Your task to perform on an android device: Search for the new nike air max shoes on Nike. Image 0: 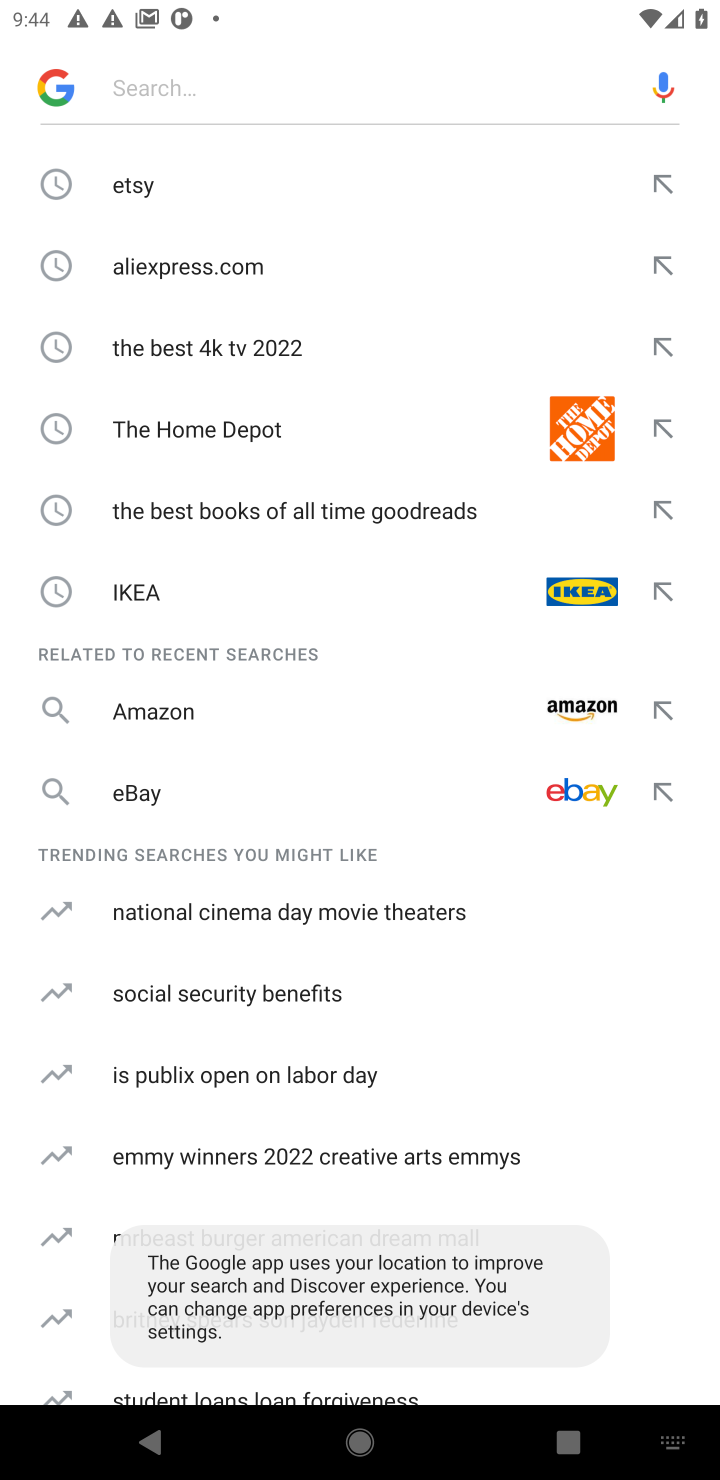
Step 0: press home button
Your task to perform on an android device: Search for the new nike air max shoes on Nike. Image 1: 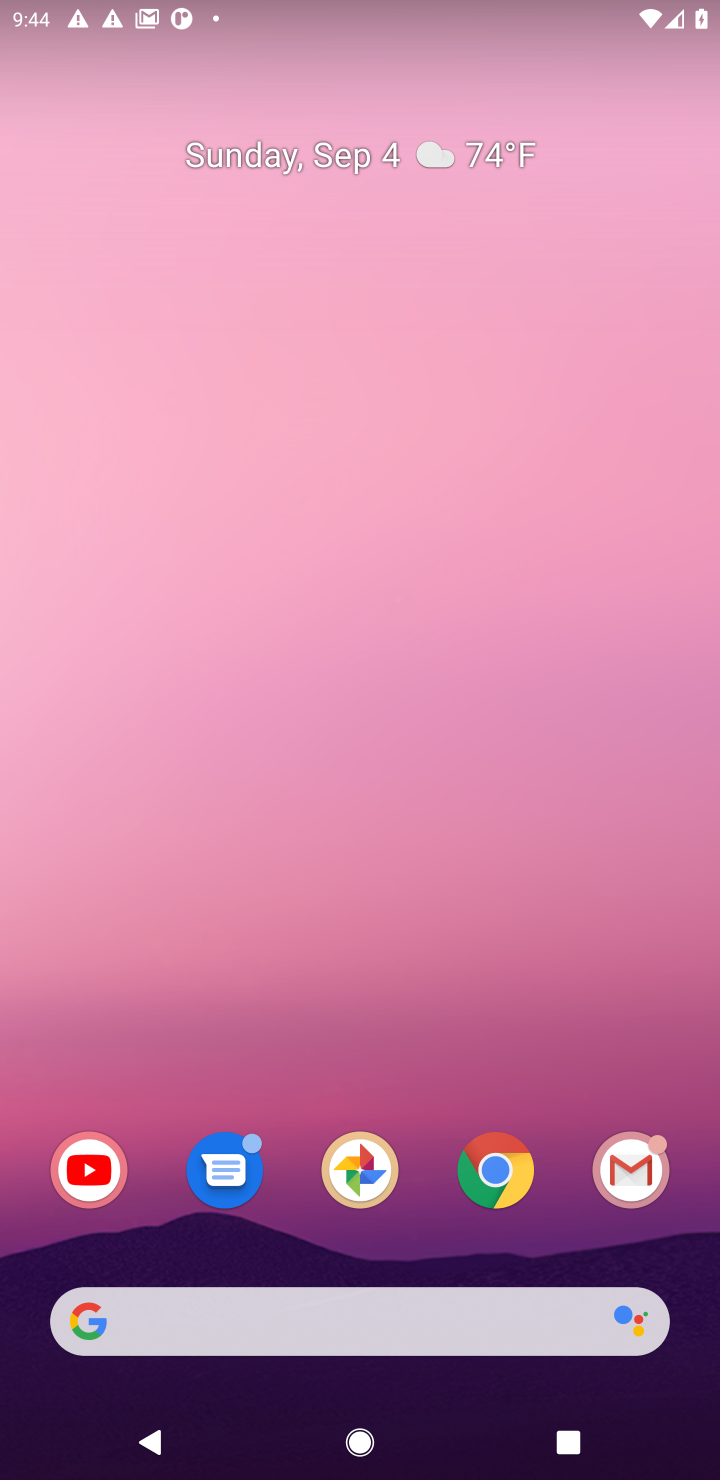
Step 1: click (511, 1175)
Your task to perform on an android device: Search for the new nike air max shoes on Nike. Image 2: 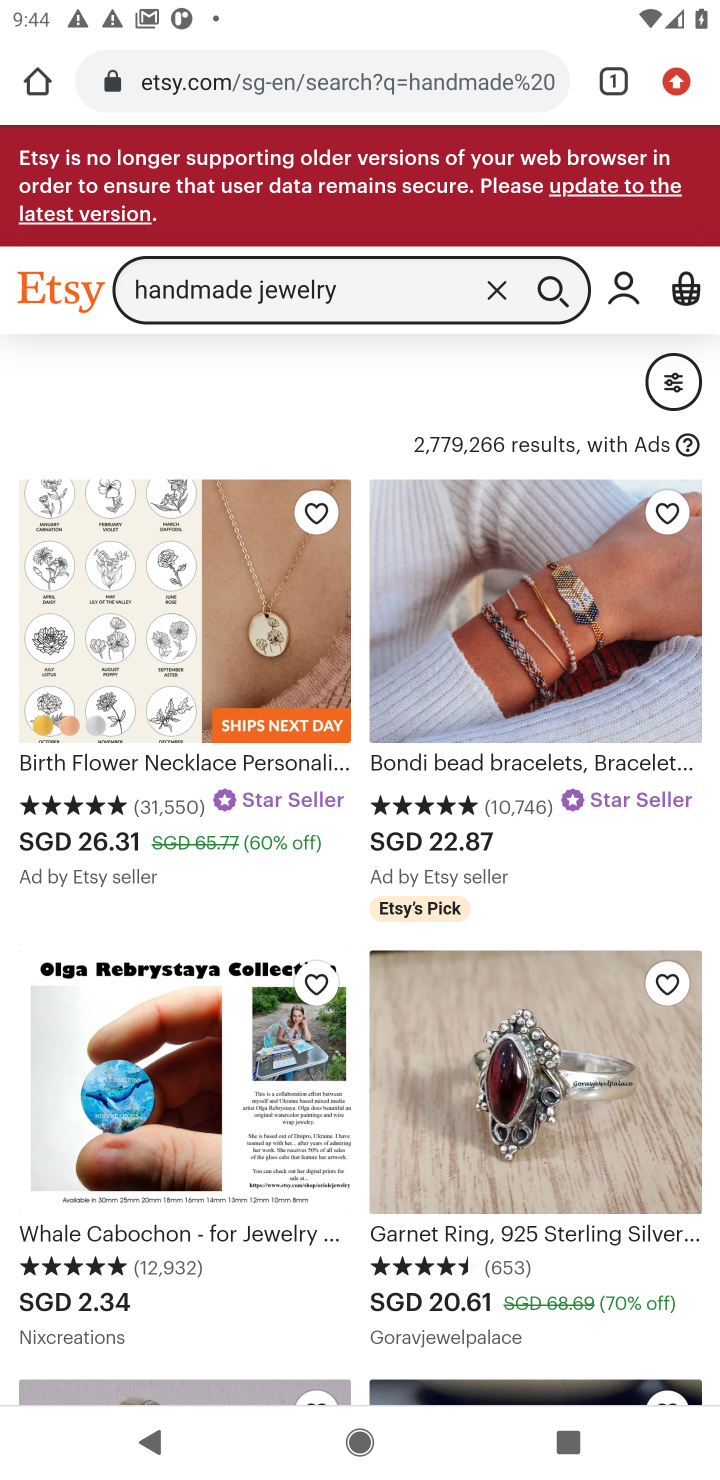
Step 2: click (277, 83)
Your task to perform on an android device: Search for the new nike air max shoes on Nike. Image 3: 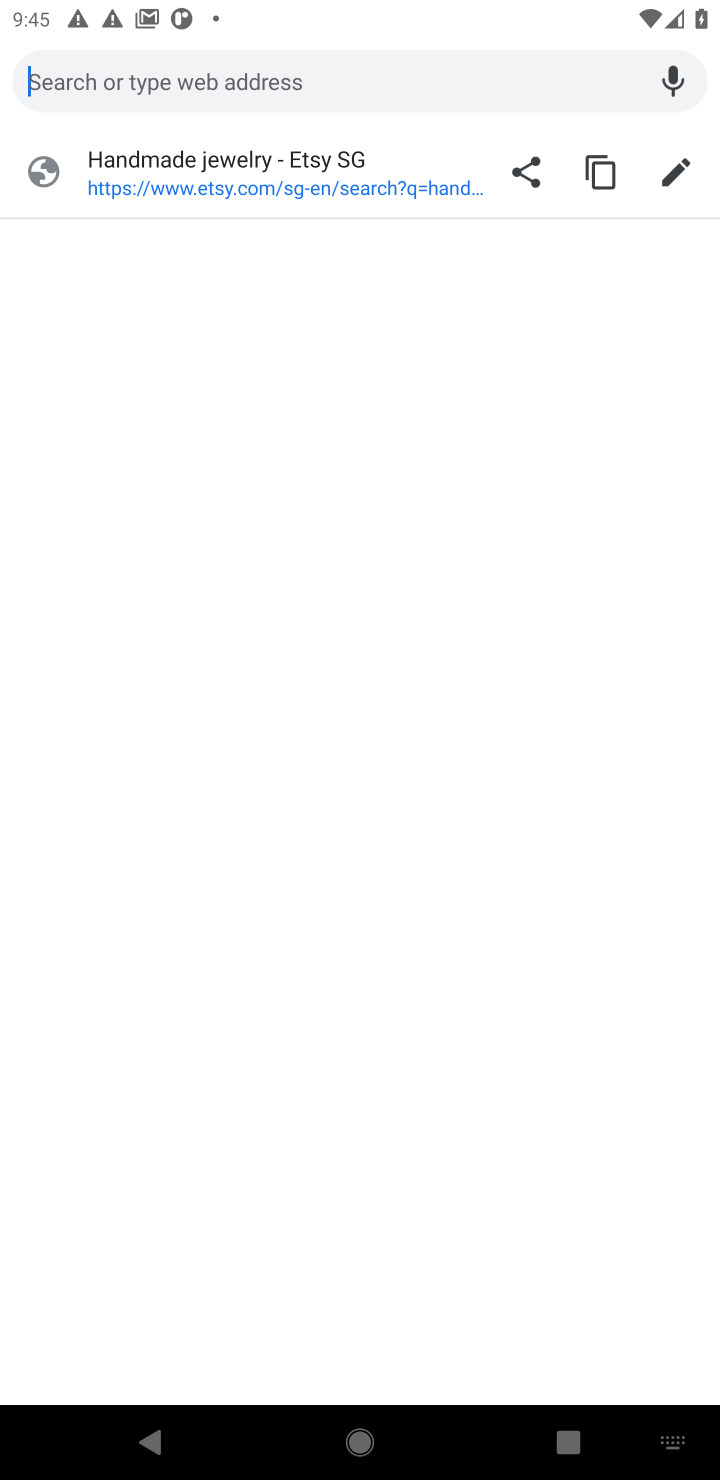
Step 3: type "Nike"
Your task to perform on an android device: Search for the new nike air max shoes on Nike. Image 4: 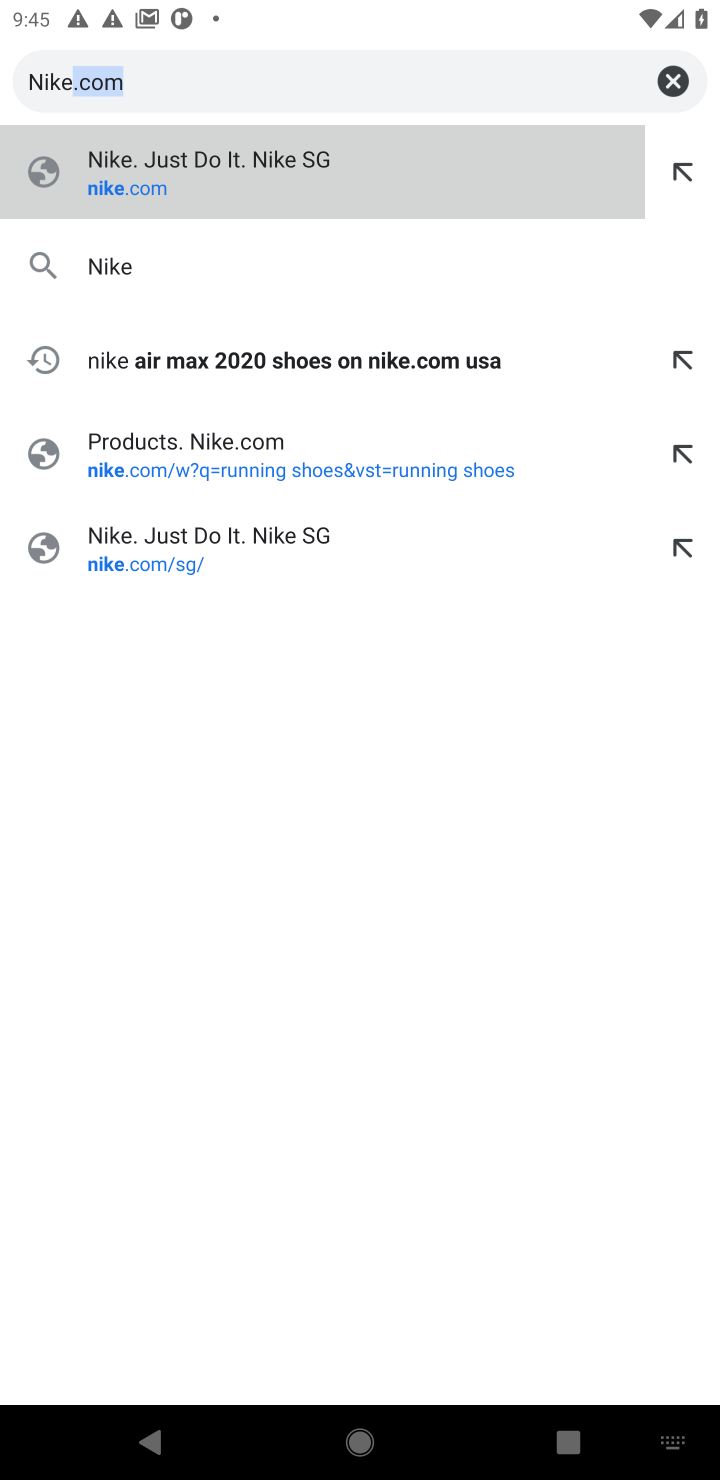
Step 4: click (162, 262)
Your task to perform on an android device: Search for the new nike air max shoes on Nike. Image 5: 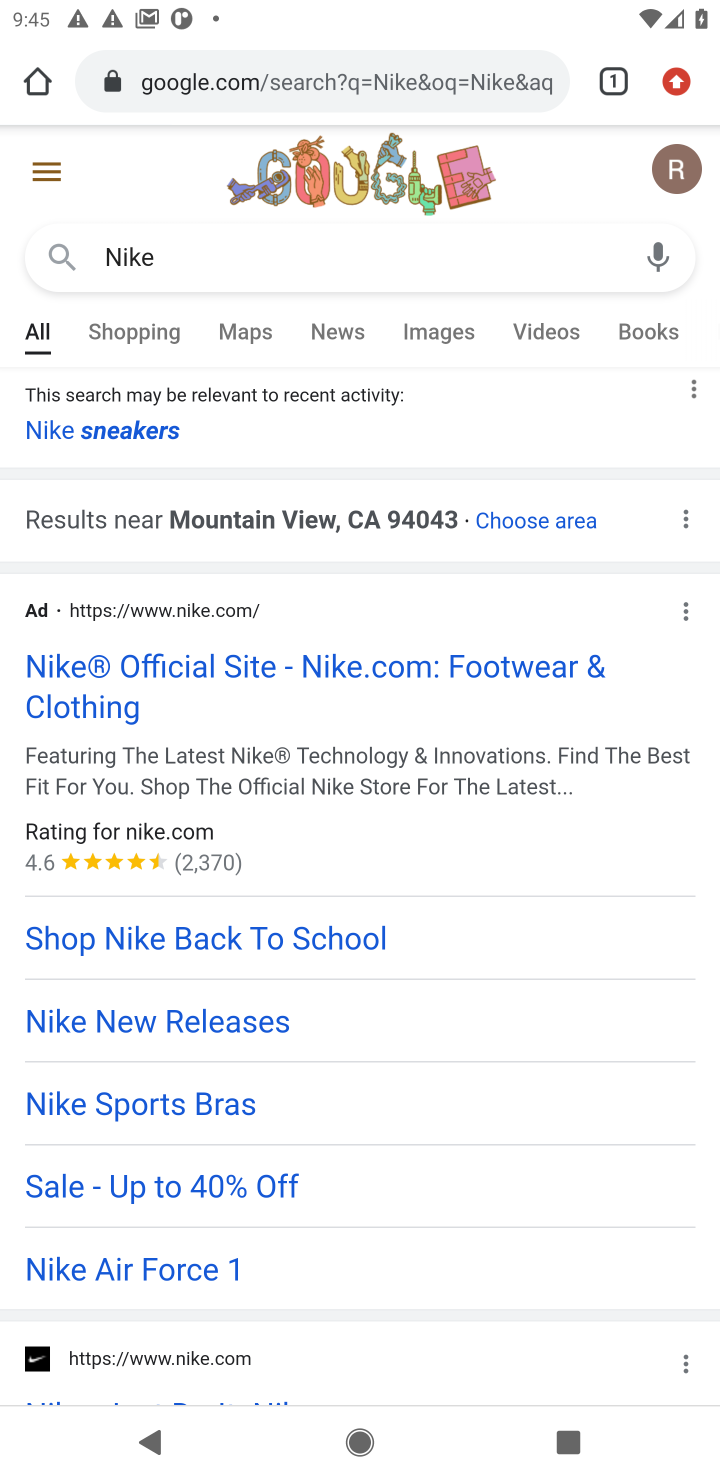
Step 5: click (137, 682)
Your task to perform on an android device: Search for the new nike air max shoes on Nike. Image 6: 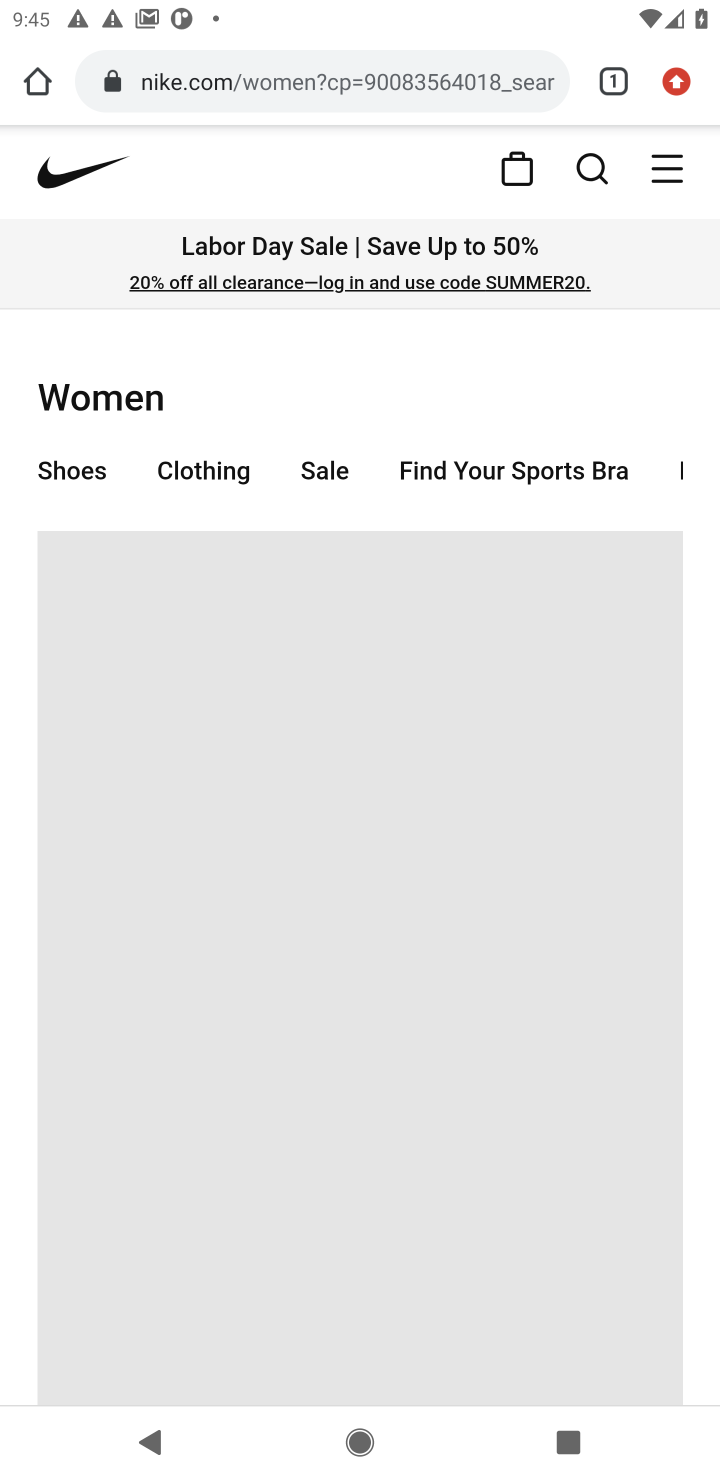
Step 6: click (594, 168)
Your task to perform on an android device: Search for the new nike air max shoes on Nike. Image 7: 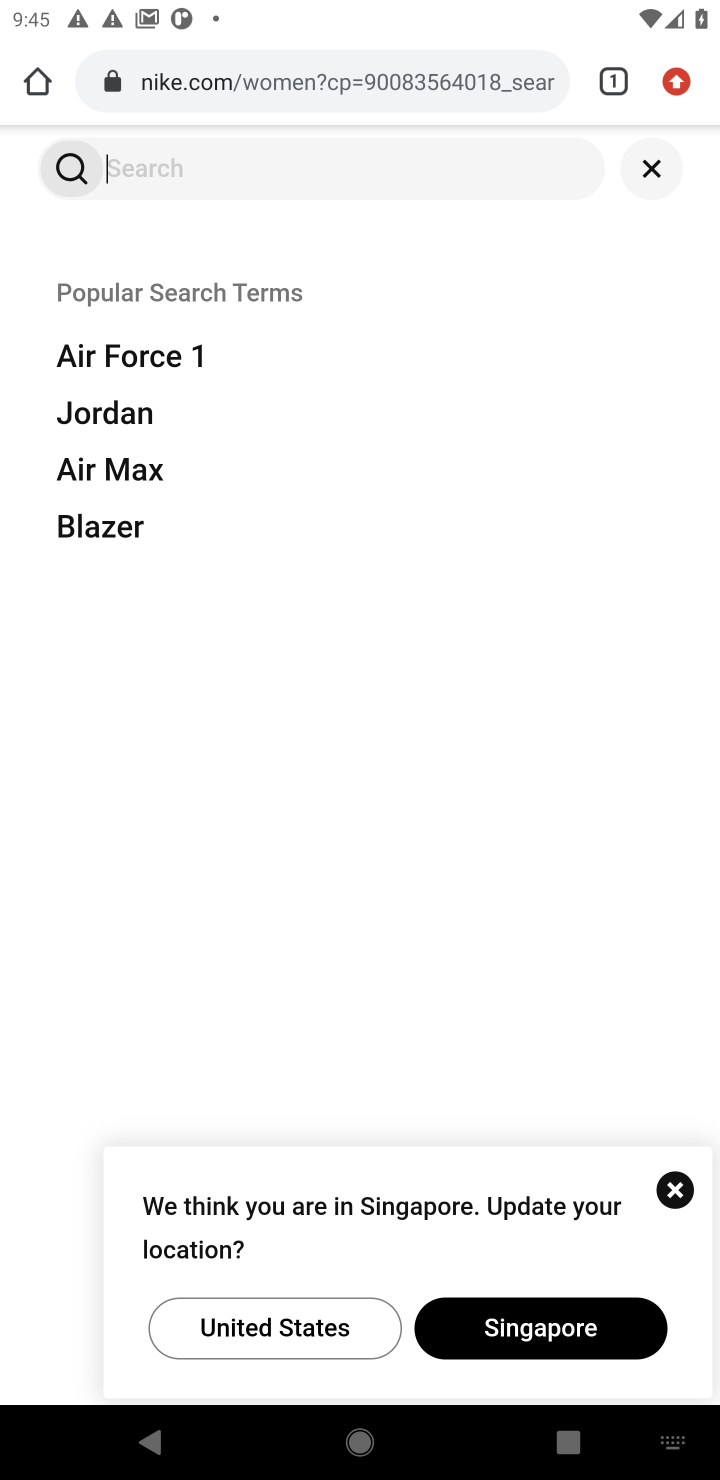
Step 7: type "the new nike air max shoes"
Your task to perform on an android device: Search for the new nike air max shoes on Nike. Image 8: 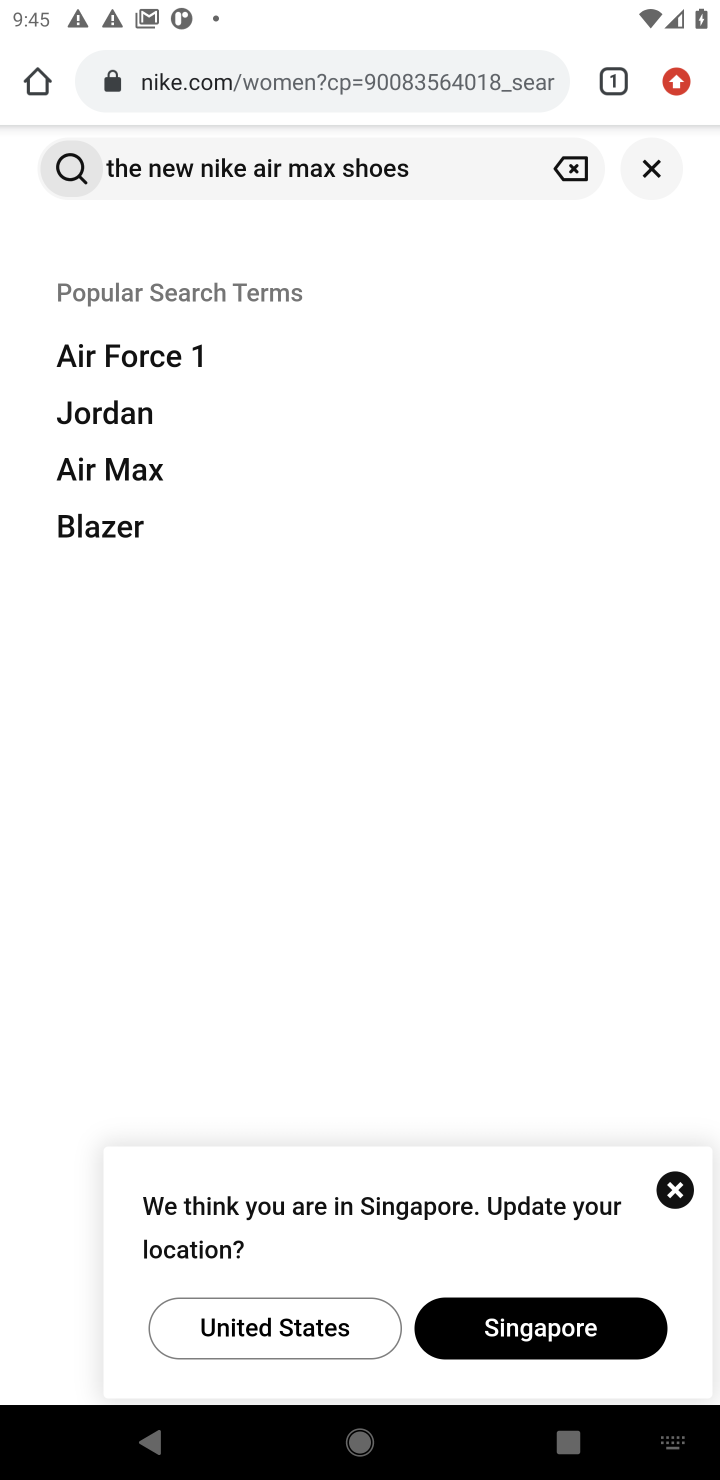
Step 8: click (72, 173)
Your task to perform on an android device: Search for the new nike air max shoes on Nike. Image 9: 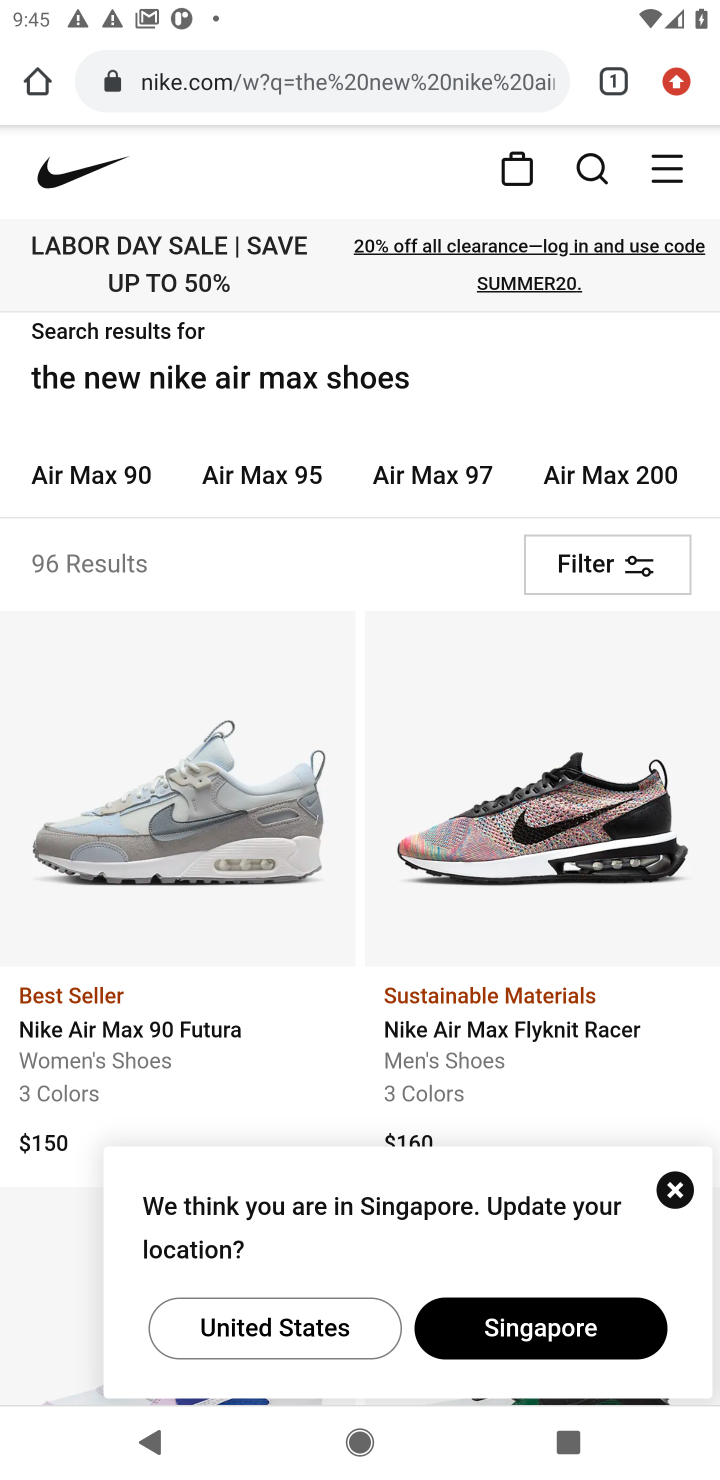
Step 9: task complete